Your task to perform on an android device: Open Reddit.com Image 0: 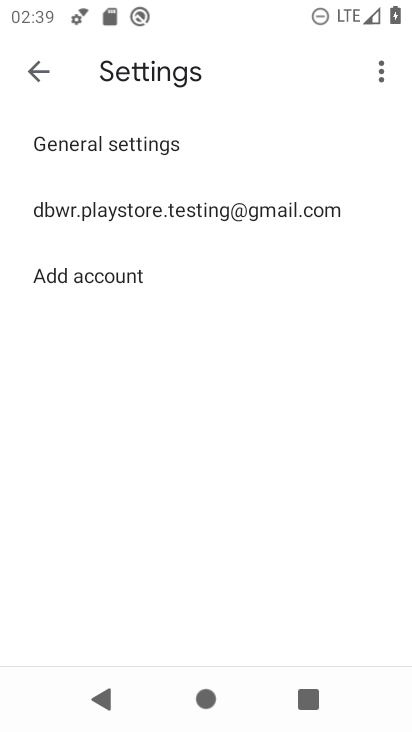
Step 0: press home button
Your task to perform on an android device: Open Reddit.com Image 1: 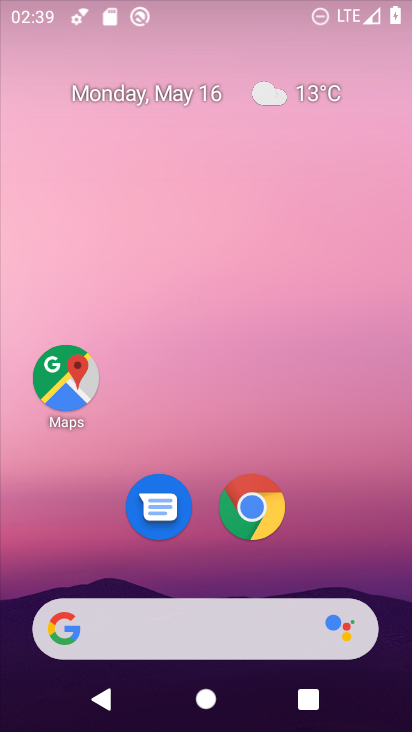
Step 1: click (261, 509)
Your task to perform on an android device: Open Reddit.com Image 2: 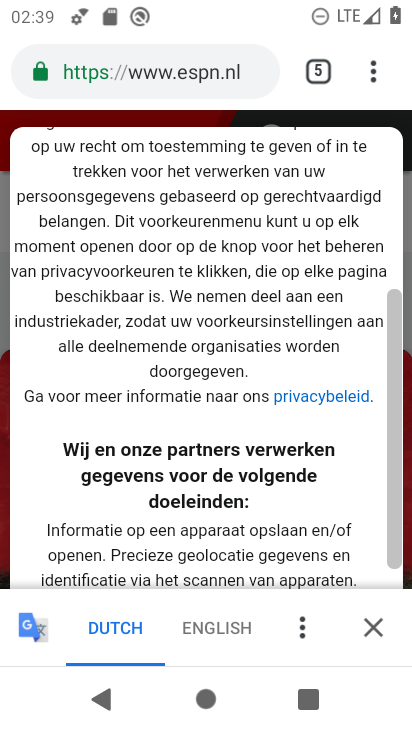
Step 2: click (308, 58)
Your task to perform on an android device: Open Reddit.com Image 3: 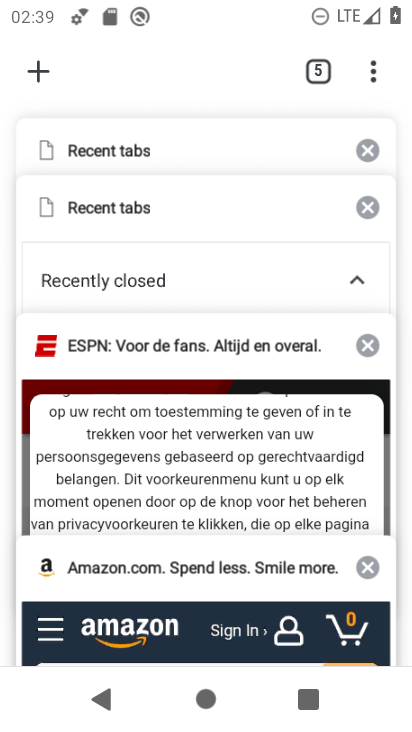
Step 3: click (119, 149)
Your task to perform on an android device: Open Reddit.com Image 4: 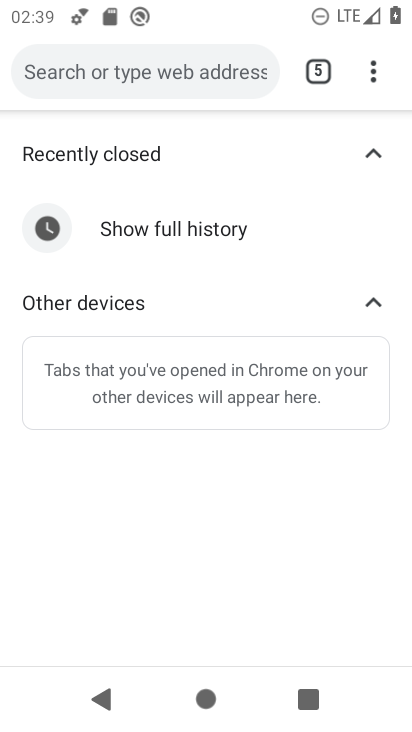
Step 4: click (179, 67)
Your task to perform on an android device: Open Reddit.com Image 5: 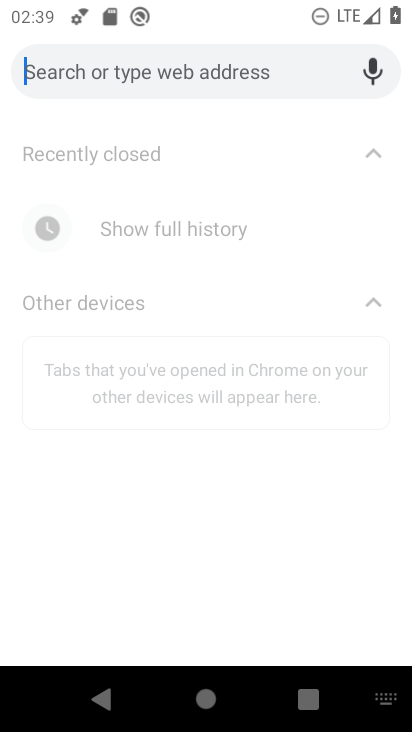
Step 5: type "Reddit.com"
Your task to perform on an android device: Open Reddit.com Image 6: 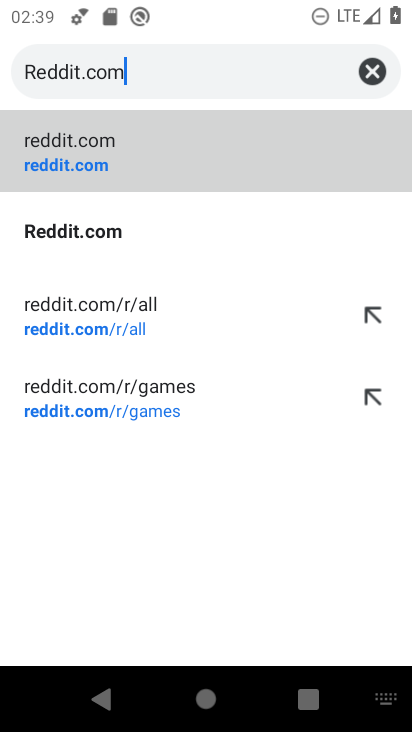
Step 6: click (208, 162)
Your task to perform on an android device: Open Reddit.com Image 7: 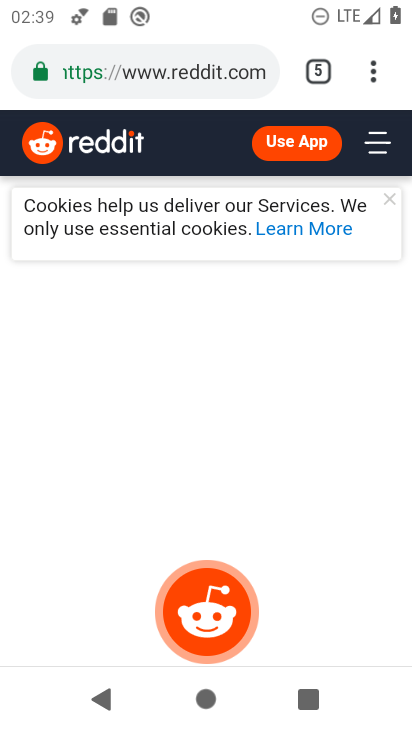
Step 7: task complete